Your task to perform on an android device: set the timer Image 0: 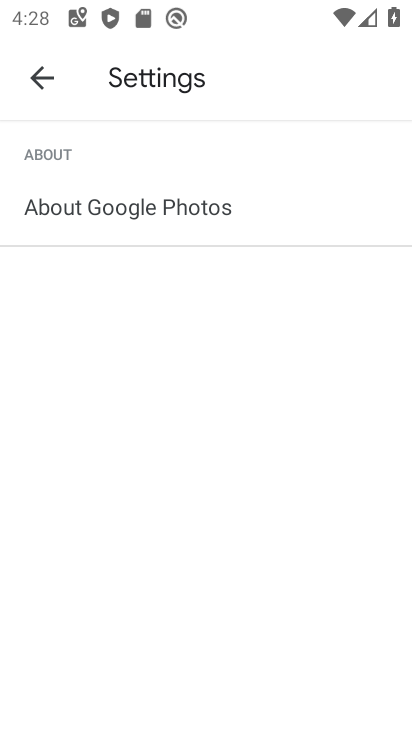
Step 0: press home button
Your task to perform on an android device: set the timer Image 1: 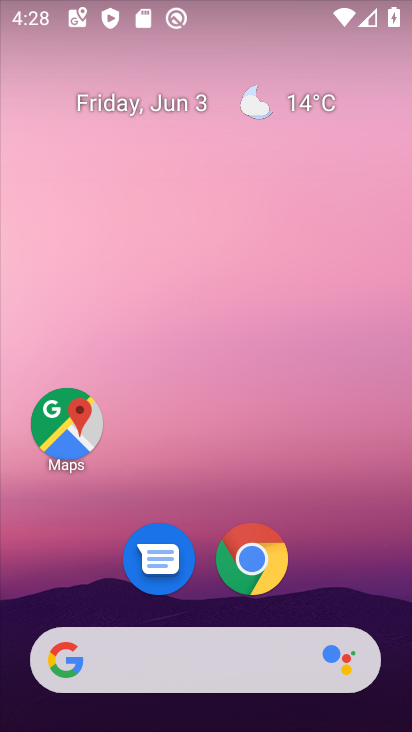
Step 1: drag from (320, 582) to (321, 165)
Your task to perform on an android device: set the timer Image 2: 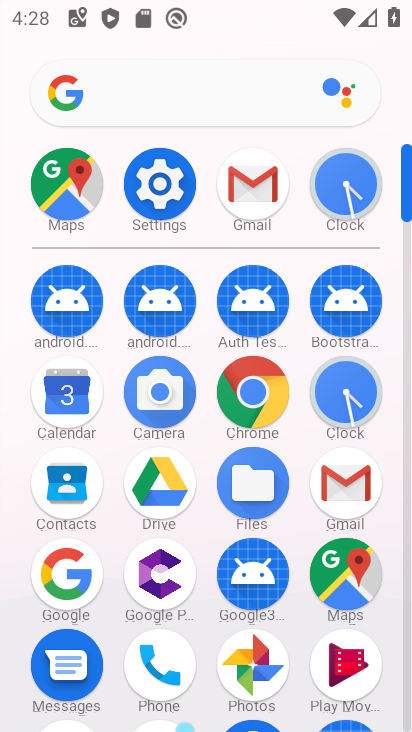
Step 2: click (361, 377)
Your task to perform on an android device: set the timer Image 3: 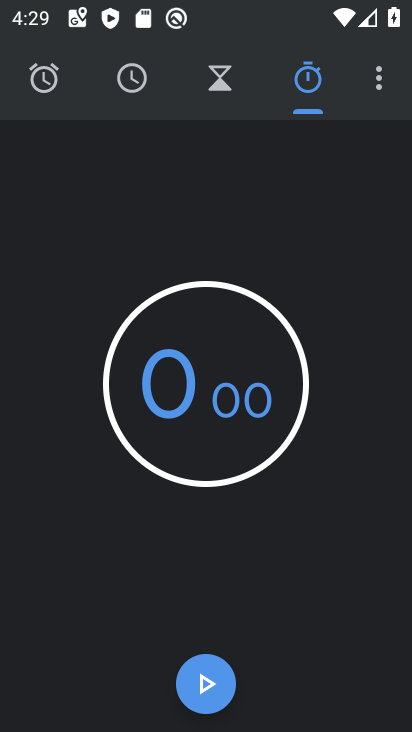
Step 3: click (377, 89)
Your task to perform on an android device: set the timer Image 4: 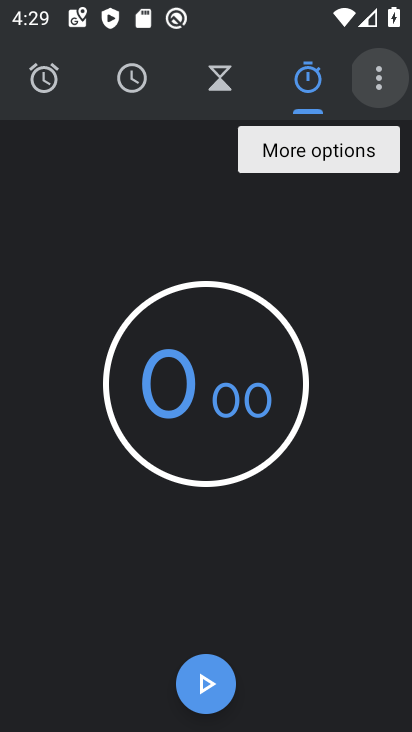
Step 4: click (377, 89)
Your task to perform on an android device: set the timer Image 5: 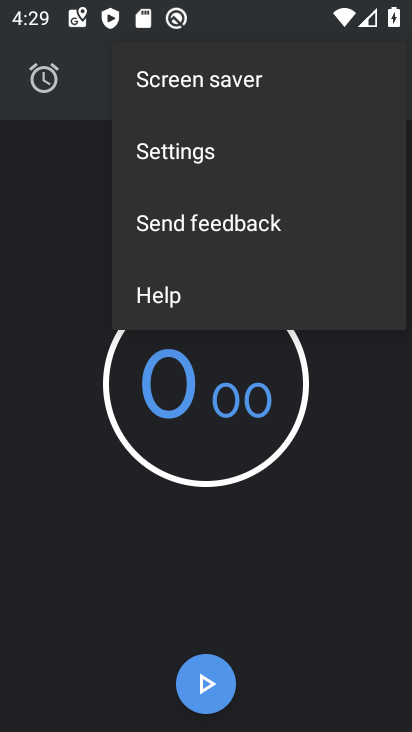
Step 5: click (87, 99)
Your task to perform on an android device: set the timer Image 6: 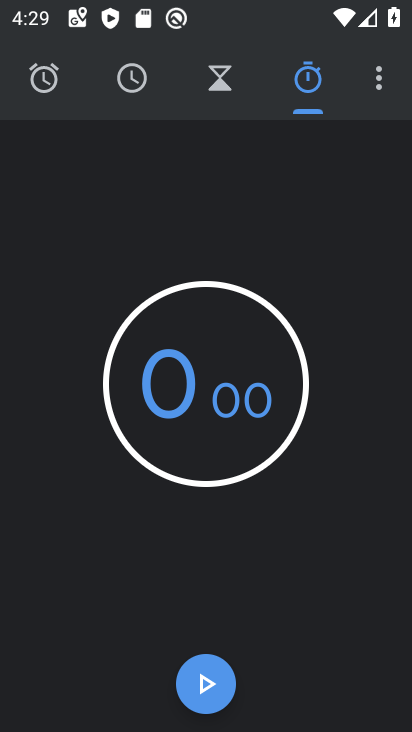
Step 6: click (219, 86)
Your task to perform on an android device: set the timer Image 7: 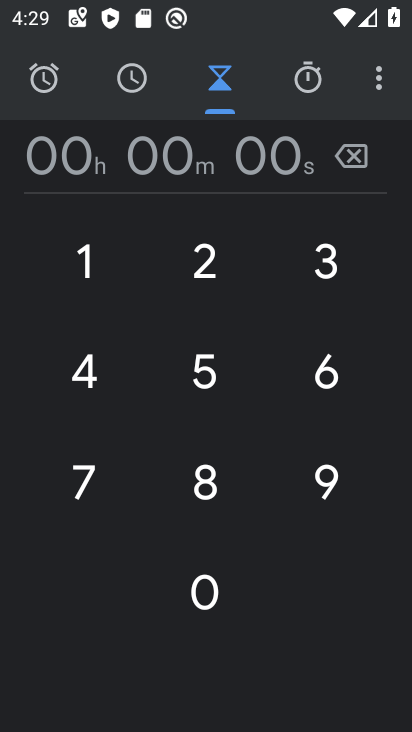
Step 7: click (206, 277)
Your task to perform on an android device: set the timer Image 8: 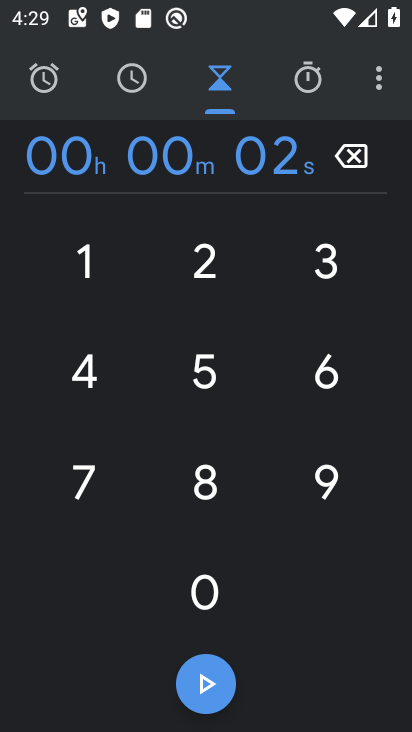
Step 8: click (206, 277)
Your task to perform on an android device: set the timer Image 9: 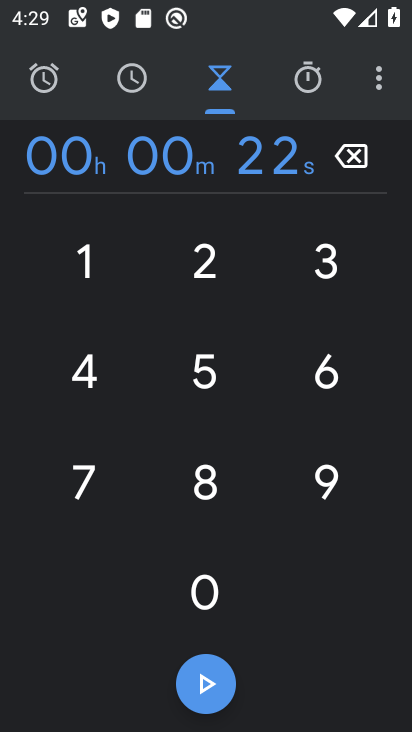
Step 9: click (210, 683)
Your task to perform on an android device: set the timer Image 10: 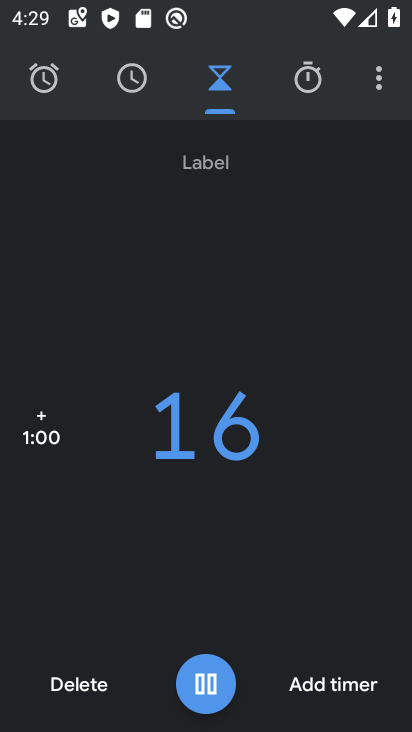
Step 10: task complete